Your task to perform on an android device: change the clock display to digital Image 0: 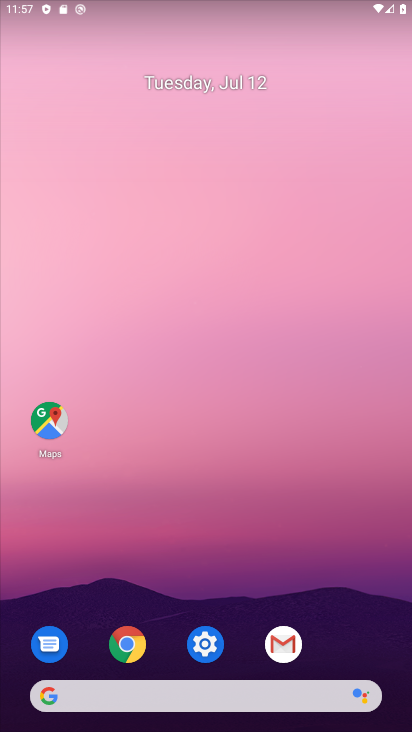
Step 0: press home button
Your task to perform on an android device: change the clock display to digital Image 1: 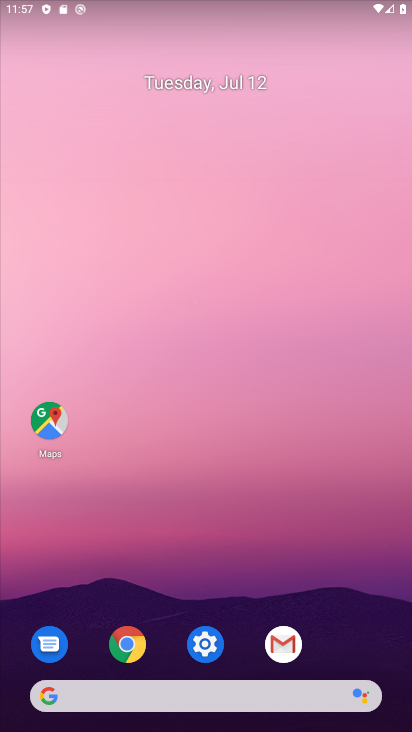
Step 1: drag from (267, 716) to (312, 200)
Your task to perform on an android device: change the clock display to digital Image 2: 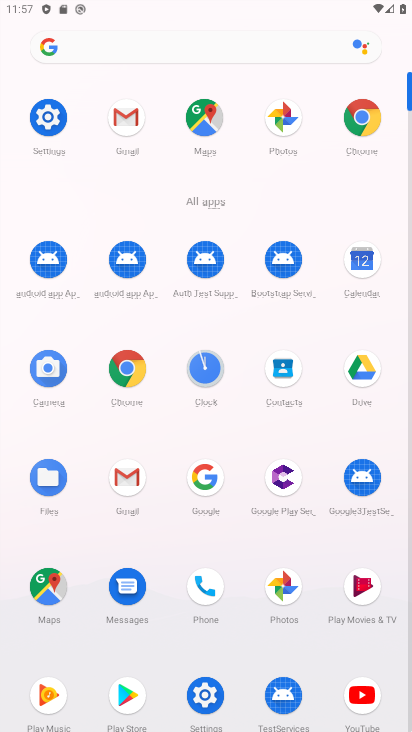
Step 2: click (210, 391)
Your task to perform on an android device: change the clock display to digital Image 3: 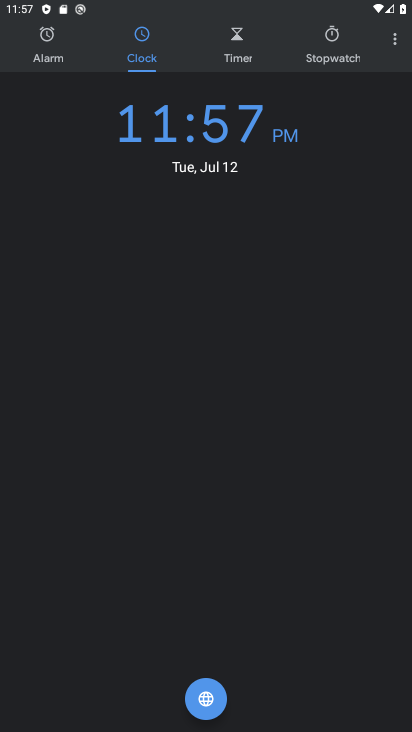
Step 3: click (391, 50)
Your task to perform on an android device: change the clock display to digital Image 4: 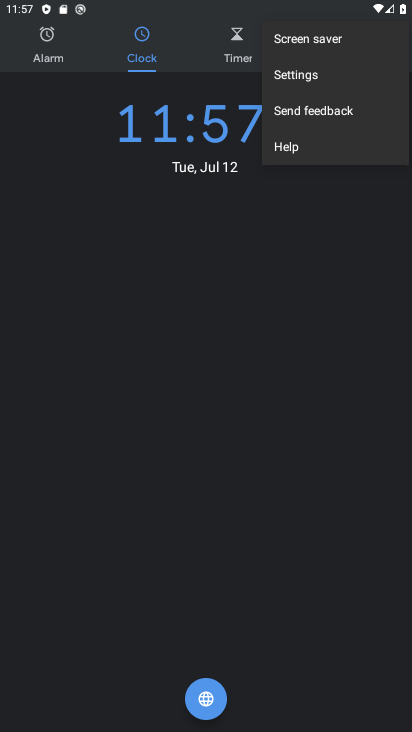
Step 4: click (291, 78)
Your task to perform on an android device: change the clock display to digital Image 5: 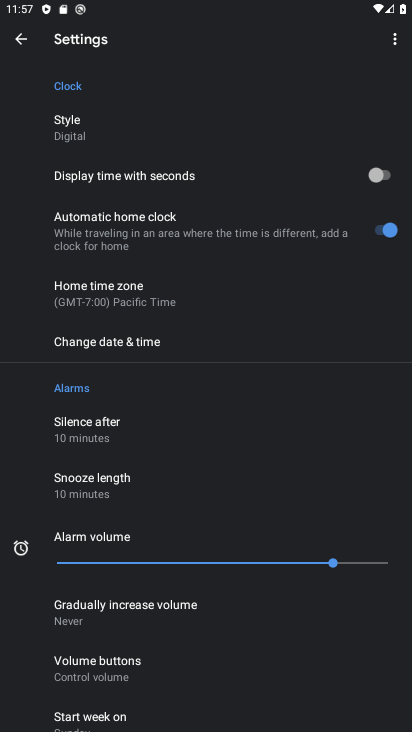
Step 5: click (91, 132)
Your task to perform on an android device: change the clock display to digital Image 6: 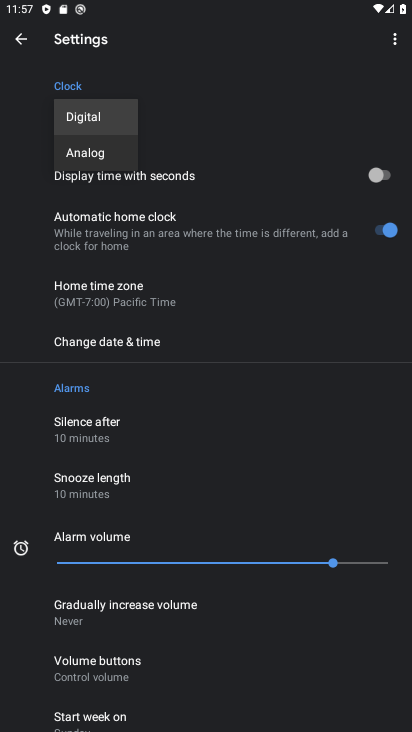
Step 6: click (109, 130)
Your task to perform on an android device: change the clock display to digital Image 7: 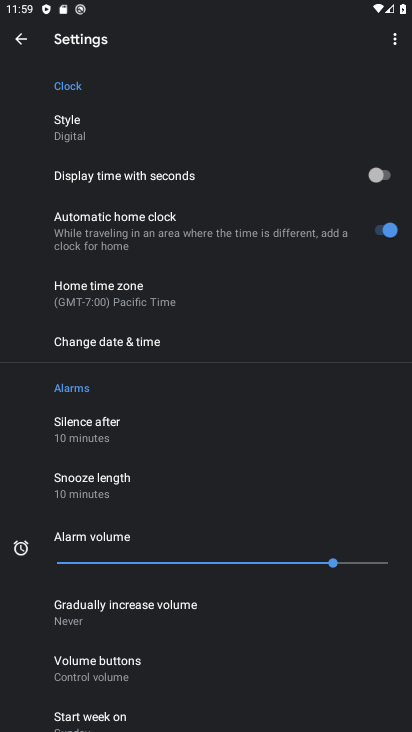
Step 7: task complete